Your task to perform on an android device: change the clock display to show seconds Image 0: 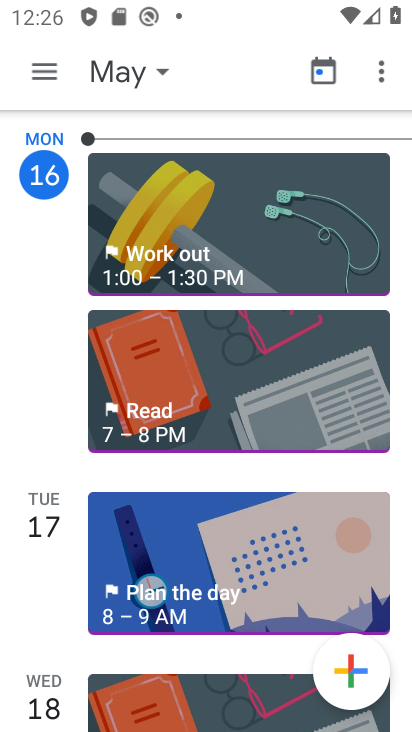
Step 0: press home button
Your task to perform on an android device: change the clock display to show seconds Image 1: 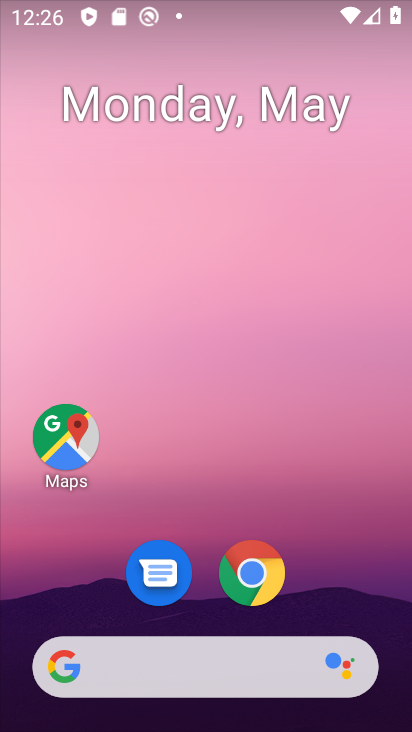
Step 1: drag from (215, 609) to (206, 22)
Your task to perform on an android device: change the clock display to show seconds Image 2: 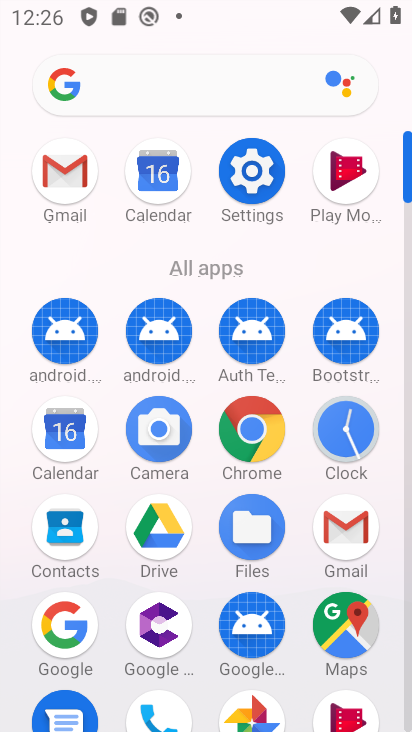
Step 2: click (348, 441)
Your task to perform on an android device: change the clock display to show seconds Image 3: 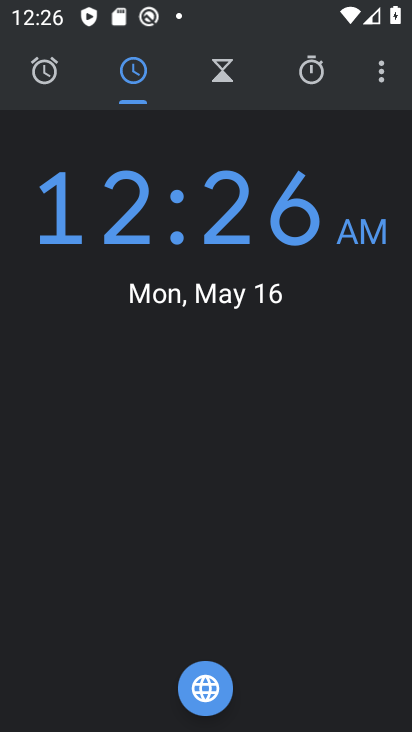
Step 3: click (398, 62)
Your task to perform on an android device: change the clock display to show seconds Image 4: 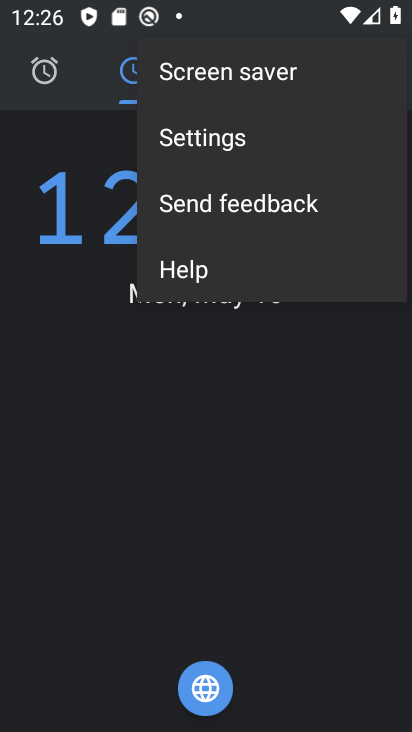
Step 4: click (204, 156)
Your task to perform on an android device: change the clock display to show seconds Image 5: 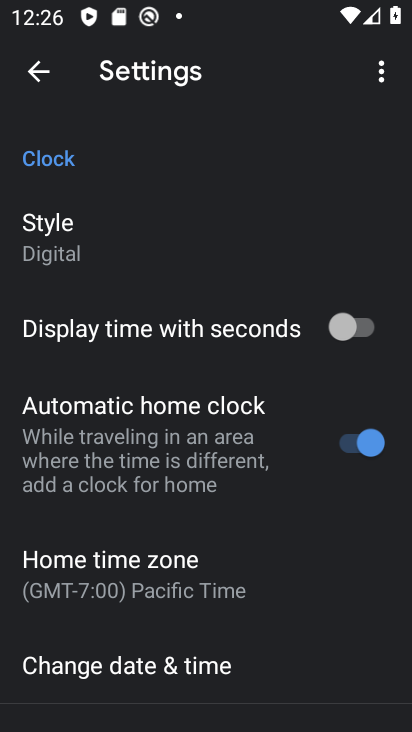
Step 5: click (382, 330)
Your task to perform on an android device: change the clock display to show seconds Image 6: 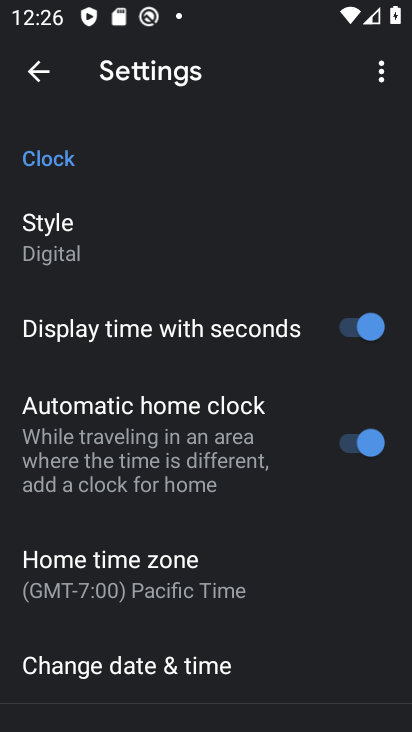
Step 6: task complete